Your task to perform on an android device: change alarm snooze length Image 0: 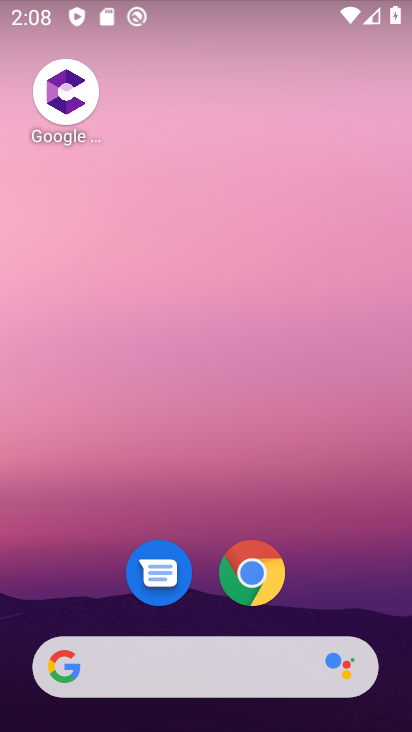
Step 0: drag from (291, 532) to (228, 91)
Your task to perform on an android device: change alarm snooze length Image 1: 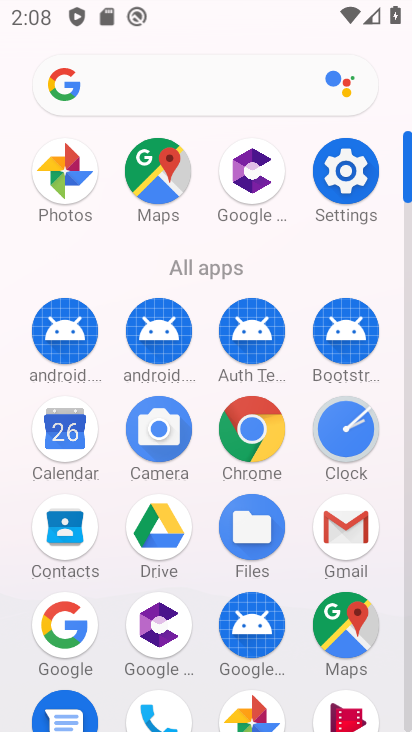
Step 1: drag from (20, 573) to (14, 220)
Your task to perform on an android device: change alarm snooze length Image 2: 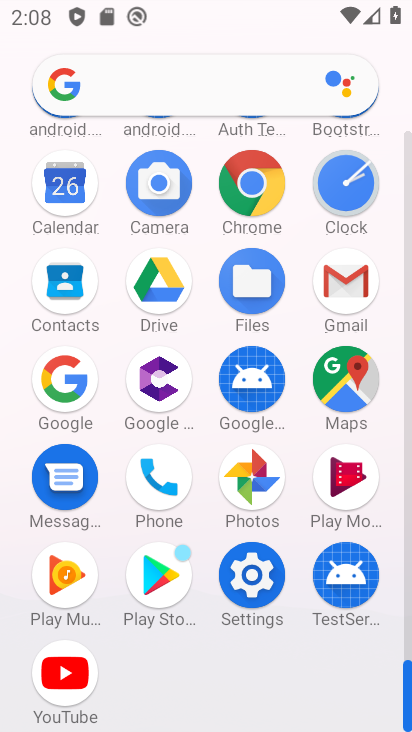
Step 2: click (348, 180)
Your task to perform on an android device: change alarm snooze length Image 3: 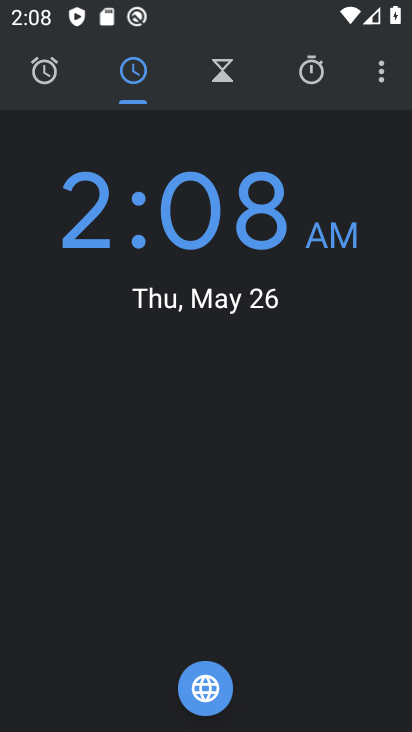
Step 3: drag from (377, 80) to (309, 130)
Your task to perform on an android device: change alarm snooze length Image 4: 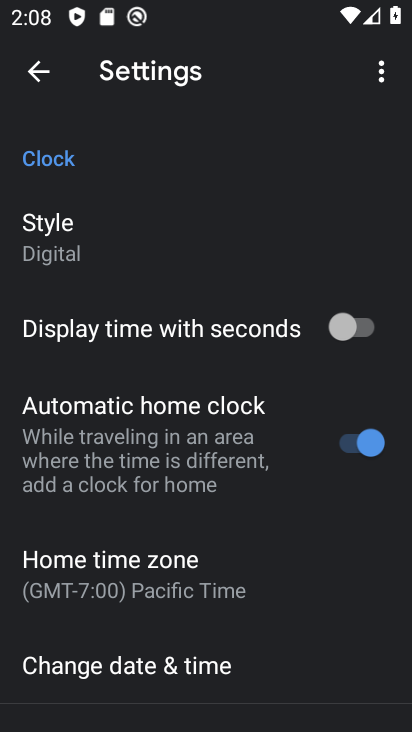
Step 4: drag from (215, 519) to (190, 237)
Your task to perform on an android device: change alarm snooze length Image 5: 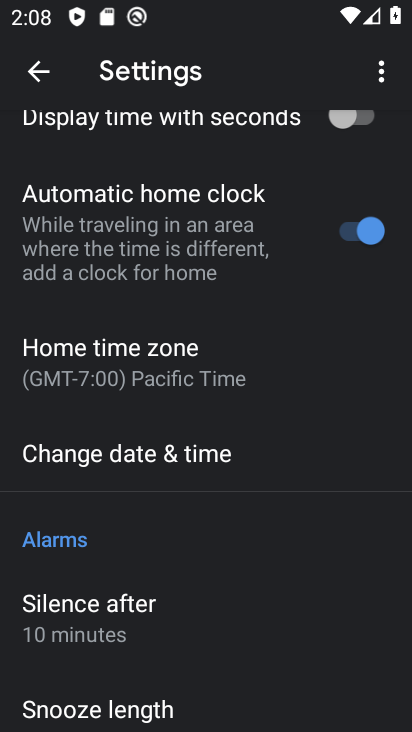
Step 5: drag from (186, 634) to (217, 209)
Your task to perform on an android device: change alarm snooze length Image 6: 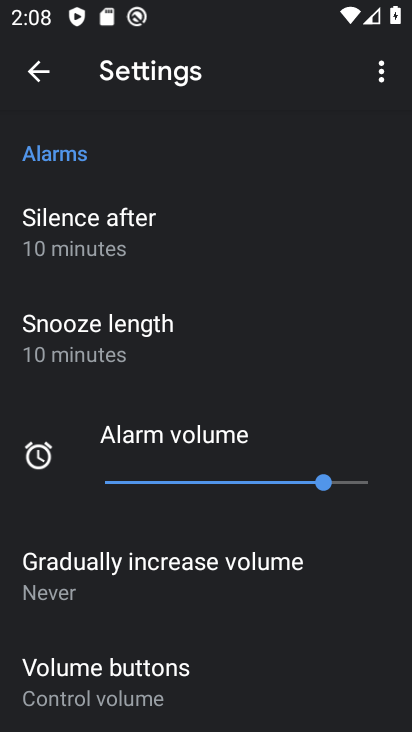
Step 6: click (168, 317)
Your task to perform on an android device: change alarm snooze length Image 7: 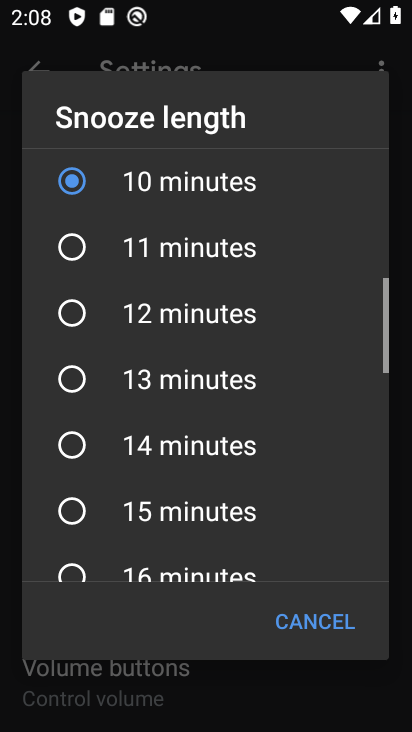
Step 7: click (152, 238)
Your task to perform on an android device: change alarm snooze length Image 8: 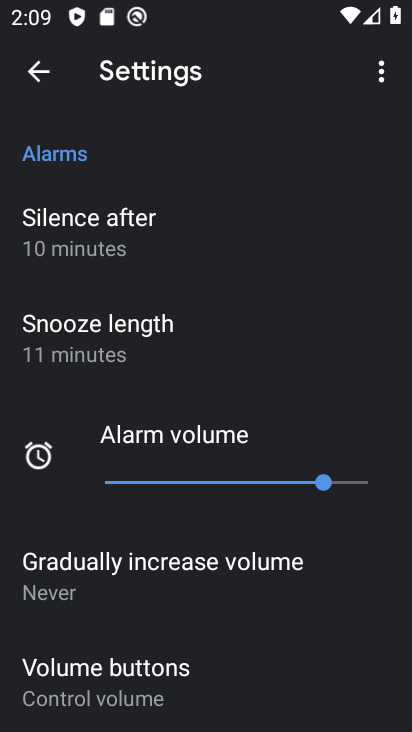
Step 8: task complete